Your task to perform on an android device: Search for seafood restaurants on Google Maps Image 0: 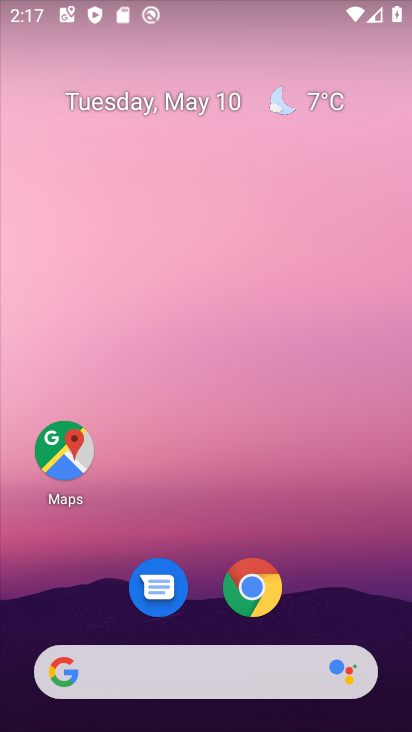
Step 0: click (362, 589)
Your task to perform on an android device: Search for seafood restaurants on Google Maps Image 1: 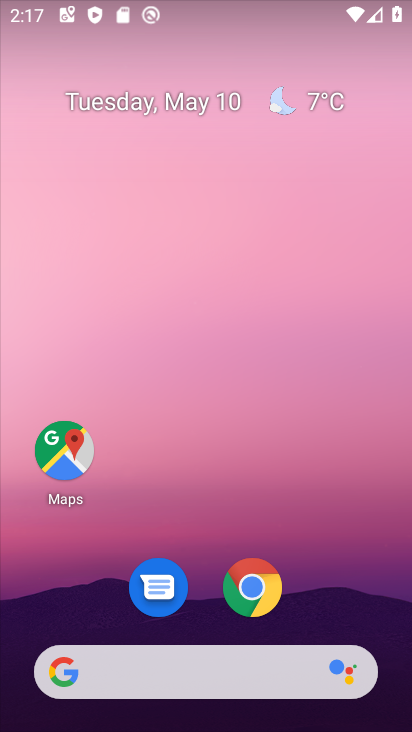
Step 1: click (78, 436)
Your task to perform on an android device: Search for seafood restaurants on Google Maps Image 2: 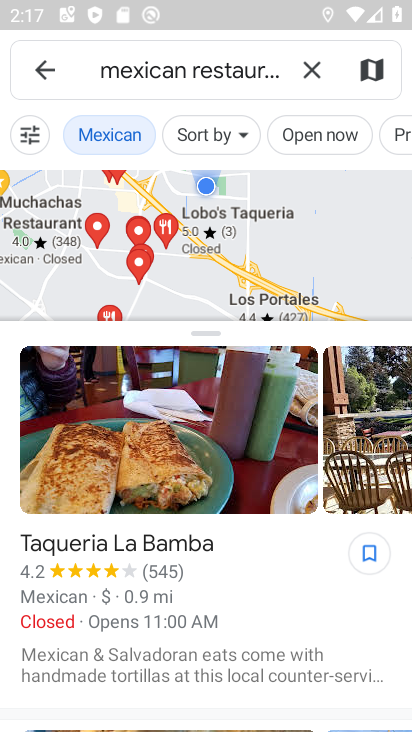
Step 2: click (308, 71)
Your task to perform on an android device: Search for seafood restaurants on Google Maps Image 3: 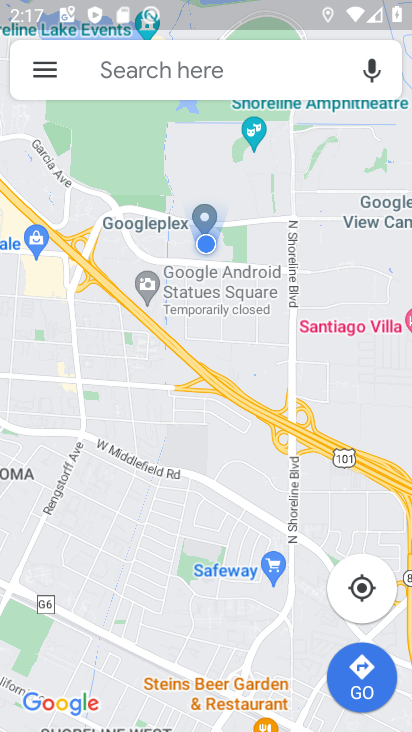
Step 3: click (220, 56)
Your task to perform on an android device: Search for seafood restaurants on Google Maps Image 4: 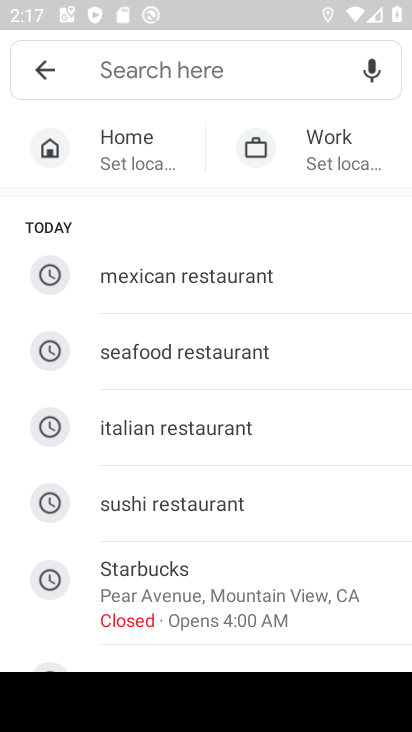
Step 4: click (210, 355)
Your task to perform on an android device: Search for seafood restaurants on Google Maps Image 5: 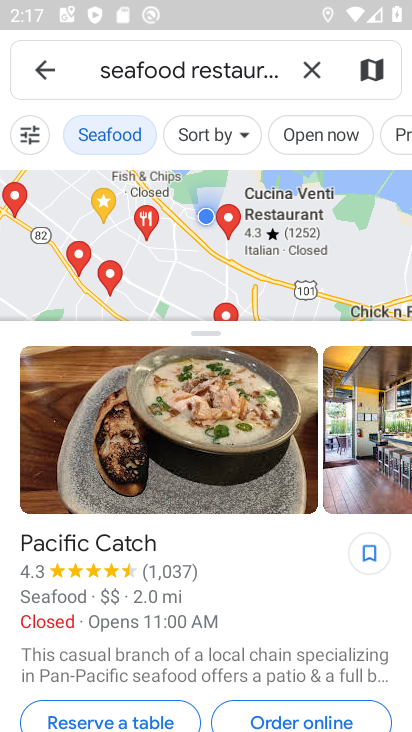
Step 5: task complete